Your task to perform on an android device: Go to Android settings Image 0: 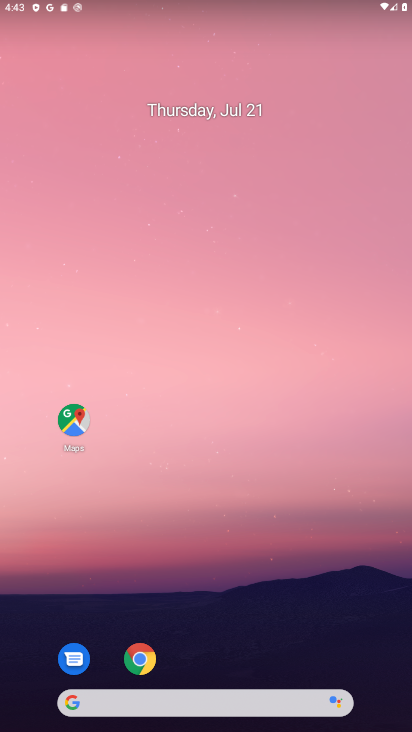
Step 0: drag from (256, 622) to (133, 39)
Your task to perform on an android device: Go to Android settings Image 1: 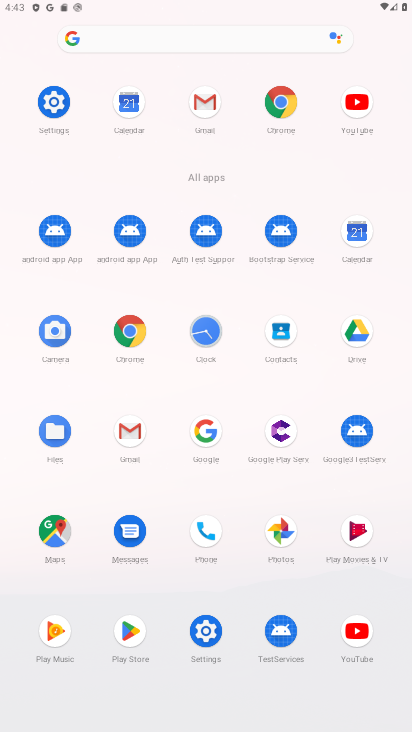
Step 1: click (54, 94)
Your task to perform on an android device: Go to Android settings Image 2: 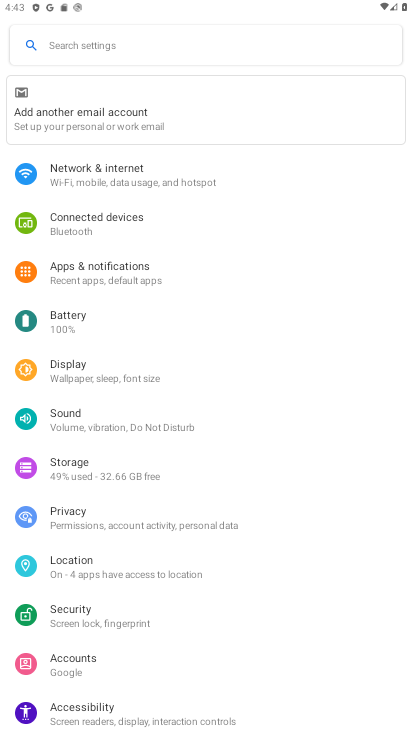
Step 2: task complete